Your task to perform on an android device: Open Google Maps Image 0: 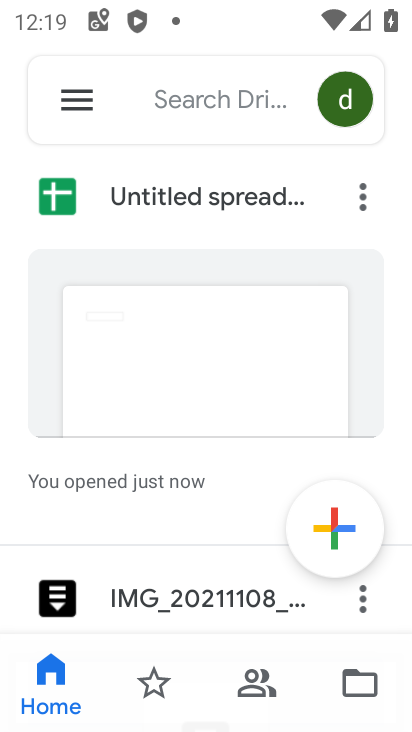
Step 0: press home button
Your task to perform on an android device: Open Google Maps Image 1: 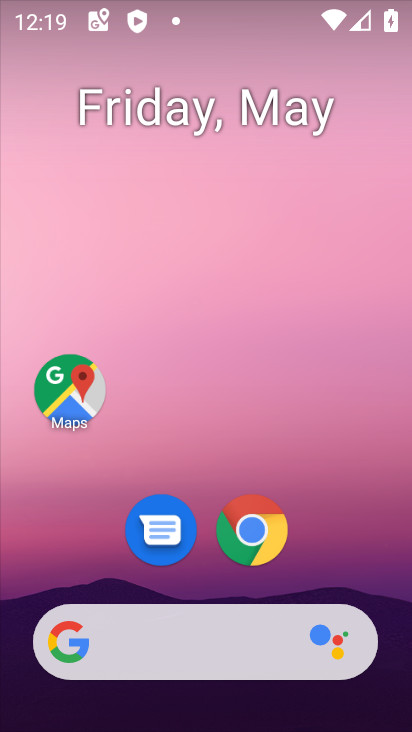
Step 1: click (65, 395)
Your task to perform on an android device: Open Google Maps Image 2: 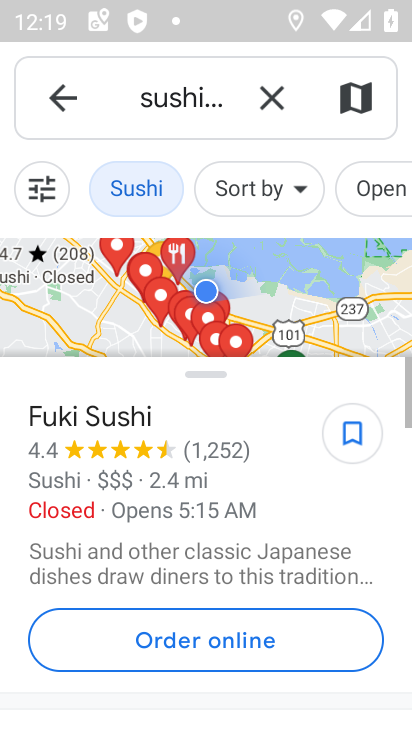
Step 2: click (271, 98)
Your task to perform on an android device: Open Google Maps Image 3: 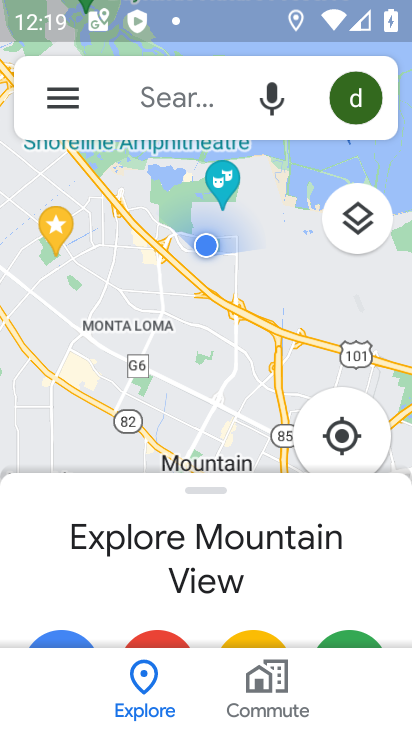
Step 3: task complete